Your task to perform on an android device: check the backup settings in the google photos Image 0: 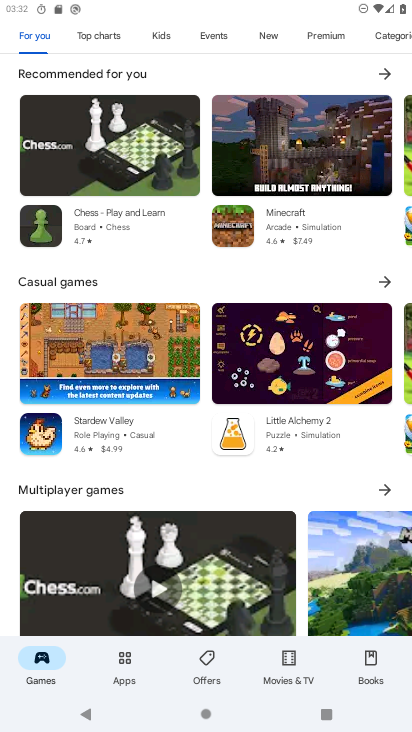
Step 0: press home button
Your task to perform on an android device: check the backup settings in the google photos Image 1: 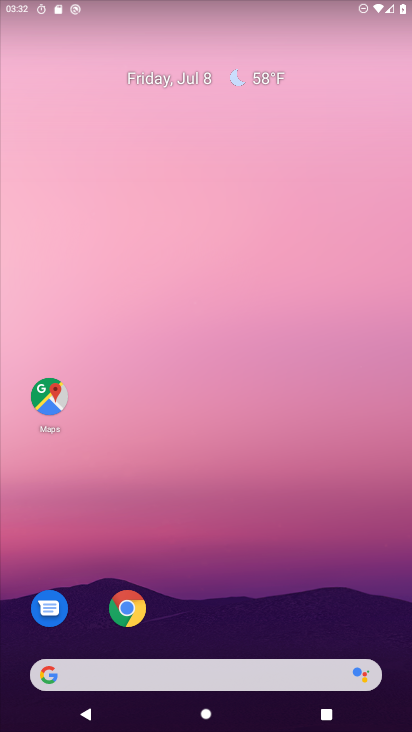
Step 1: drag from (232, 700) to (257, 44)
Your task to perform on an android device: check the backup settings in the google photos Image 2: 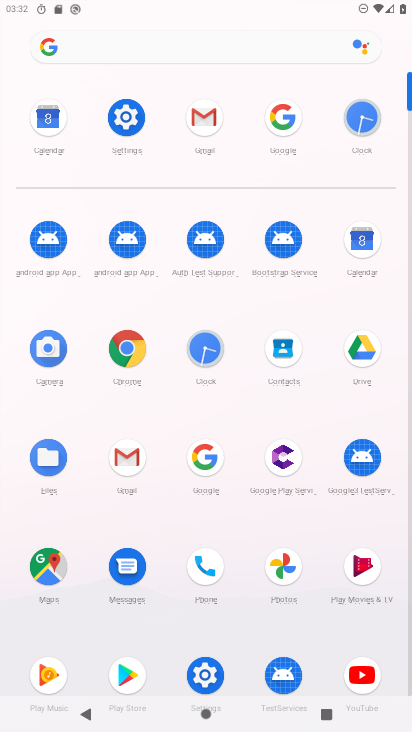
Step 2: click (284, 564)
Your task to perform on an android device: check the backup settings in the google photos Image 3: 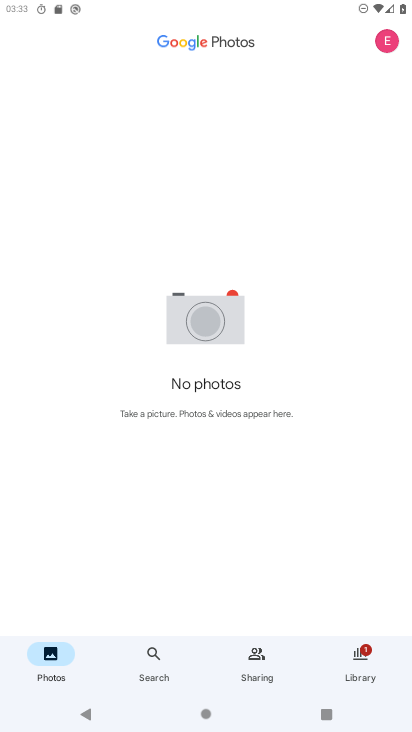
Step 3: click (388, 43)
Your task to perform on an android device: check the backup settings in the google photos Image 4: 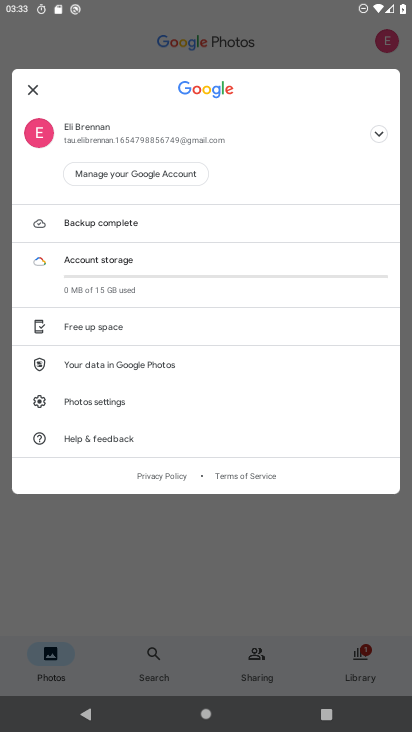
Step 4: click (85, 400)
Your task to perform on an android device: check the backup settings in the google photos Image 5: 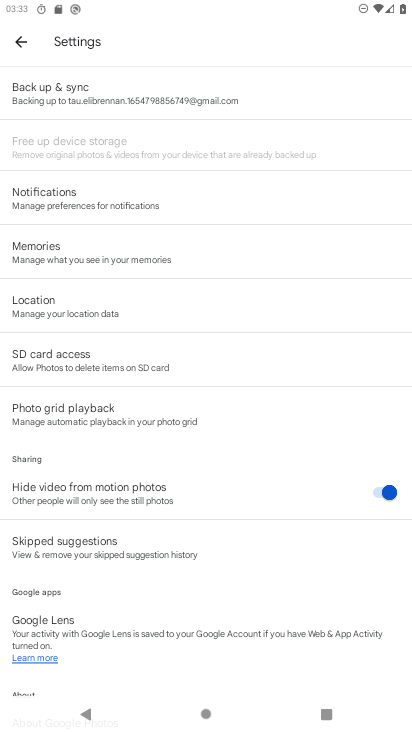
Step 5: click (47, 98)
Your task to perform on an android device: check the backup settings in the google photos Image 6: 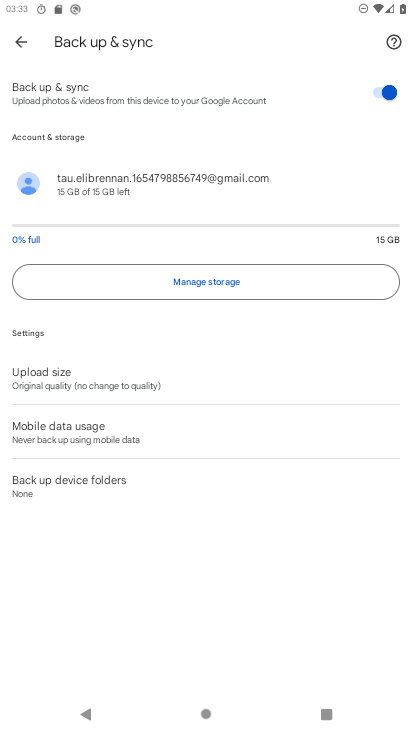
Step 6: task complete